Your task to perform on an android device: snooze an email in the gmail app Image 0: 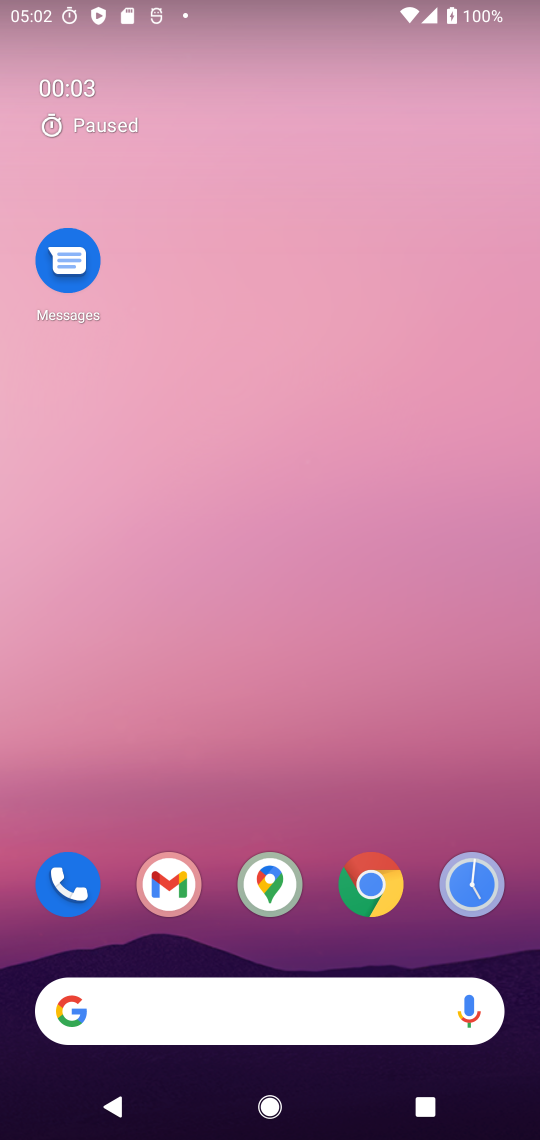
Step 0: click (180, 875)
Your task to perform on an android device: snooze an email in the gmail app Image 1: 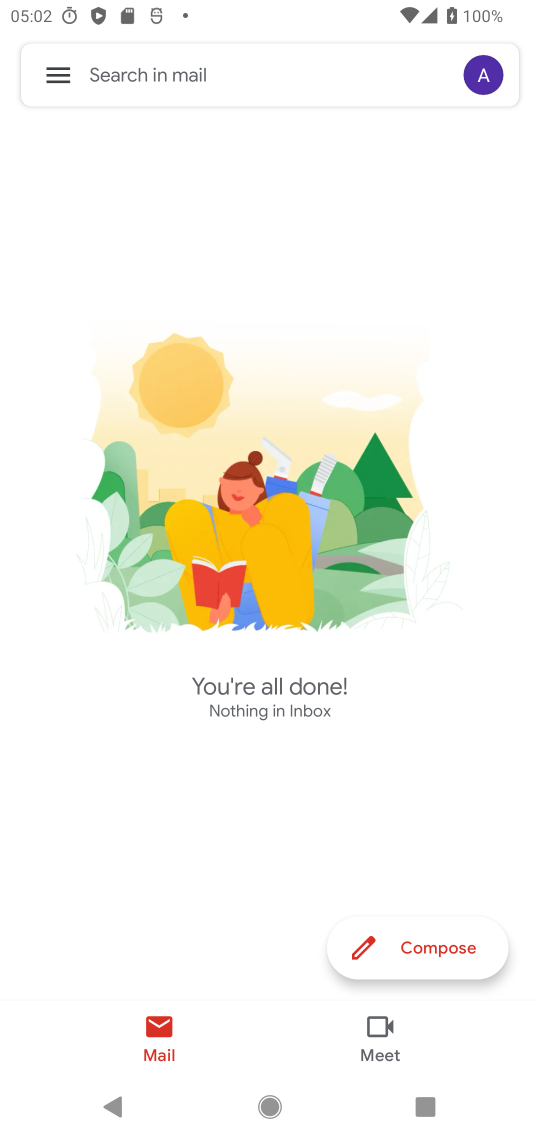
Step 1: click (64, 79)
Your task to perform on an android device: snooze an email in the gmail app Image 2: 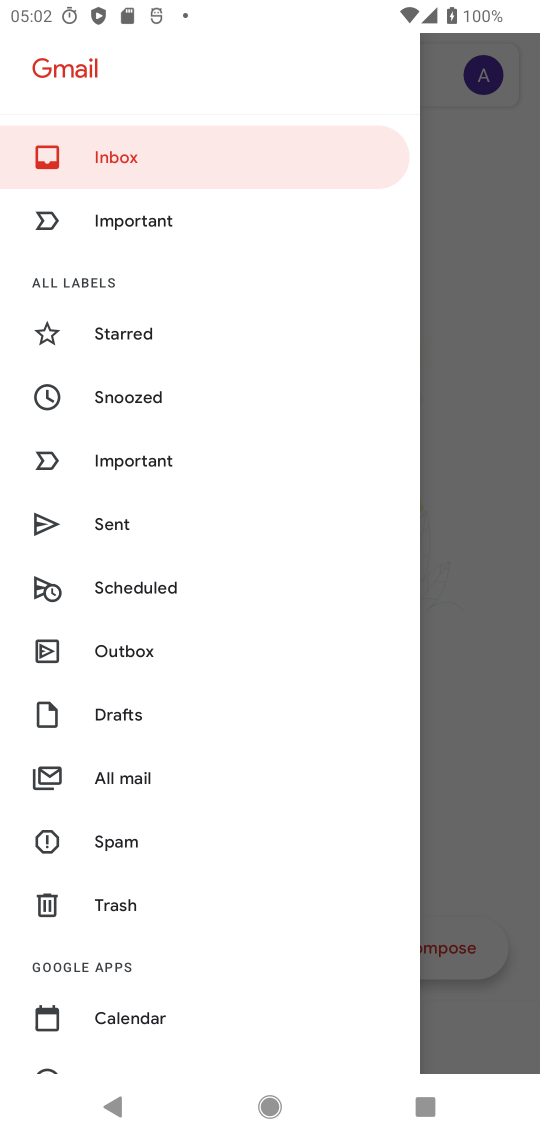
Step 2: click (110, 393)
Your task to perform on an android device: snooze an email in the gmail app Image 3: 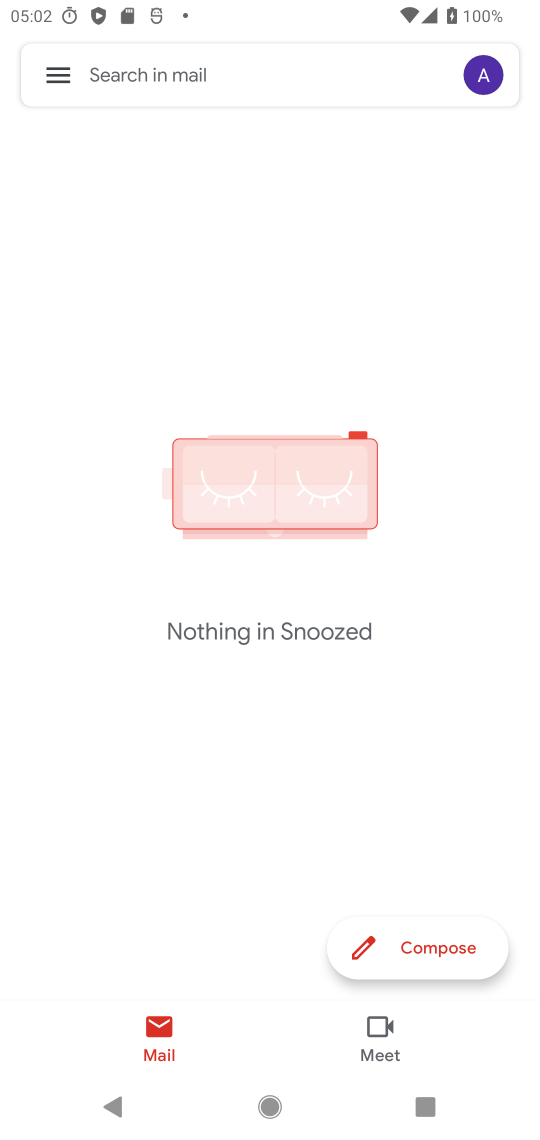
Step 3: task complete